Your task to perform on an android device: Go to wifi settings Image 0: 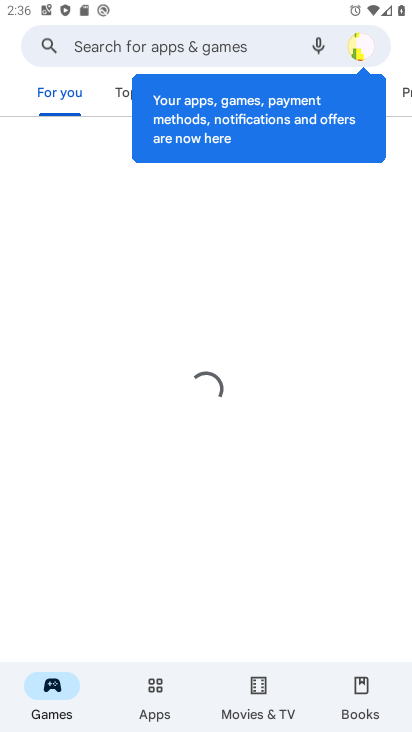
Step 0: drag from (155, 662) to (190, 348)
Your task to perform on an android device: Go to wifi settings Image 1: 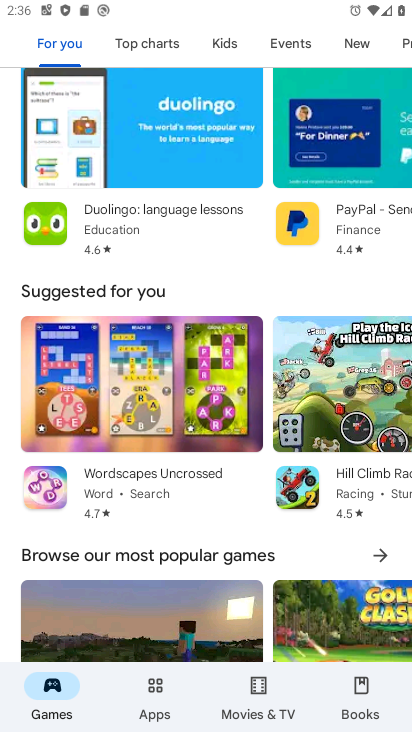
Step 1: press home button
Your task to perform on an android device: Go to wifi settings Image 2: 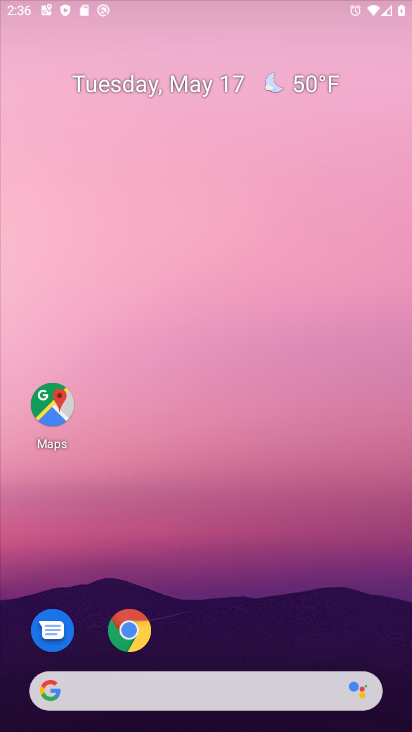
Step 2: drag from (127, 646) to (157, 284)
Your task to perform on an android device: Go to wifi settings Image 3: 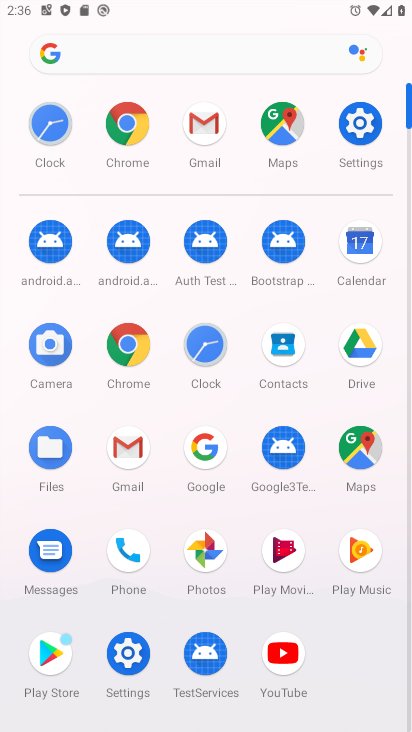
Step 3: click (357, 119)
Your task to perform on an android device: Go to wifi settings Image 4: 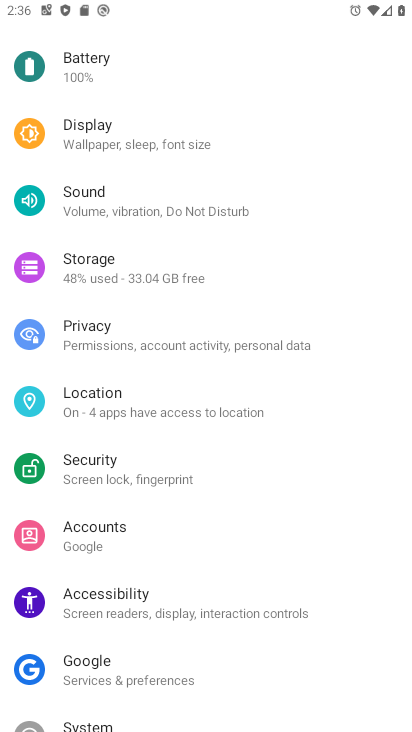
Step 4: drag from (130, 105) to (168, 496)
Your task to perform on an android device: Go to wifi settings Image 5: 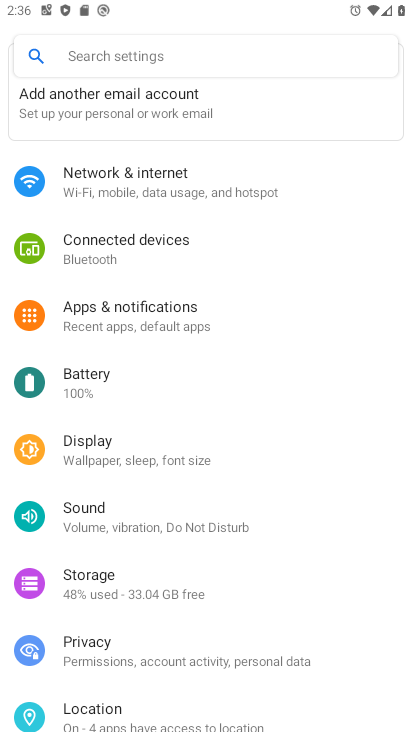
Step 5: click (165, 178)
Your task to perform on an android device: Go to wifi settings Image 6: 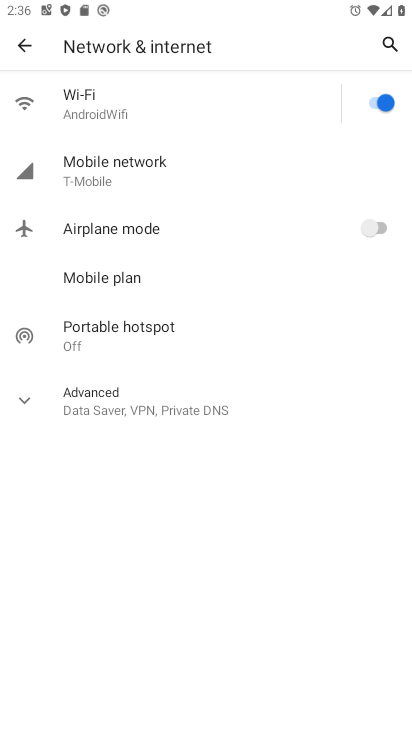
Step 6: click (178, 102)
Your task to perform on an android device: Go to wifi settings Image 7: 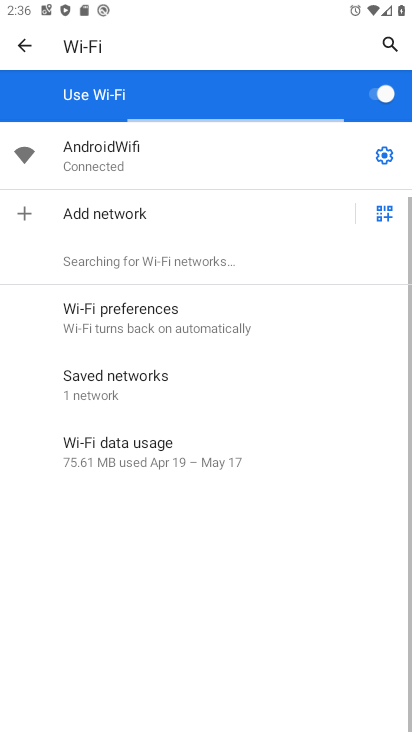
Step 7: click (380, 157)
Your task to perform on an android device: Go to wifi settings Image 8: 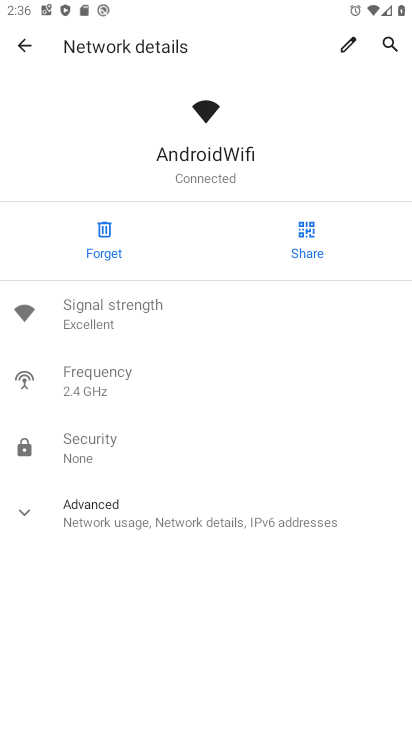
Step 8: click (192, 514)
Your task to perform on an android device: Go to wifi settings Image 9: 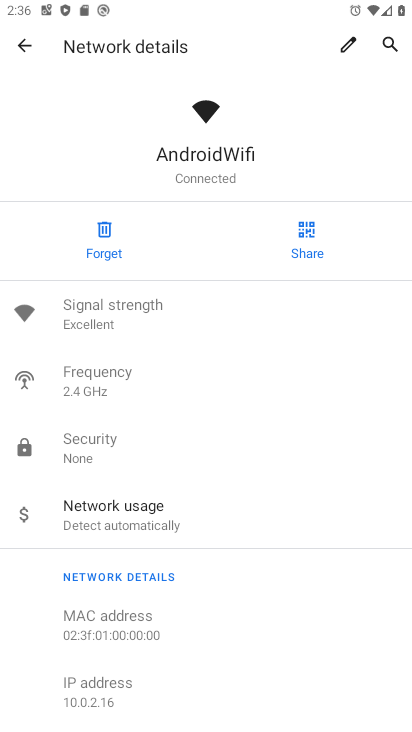
Step 9: task complete